Your task to perform on an android device: turn on priority inbox in the gmail app Image 0: 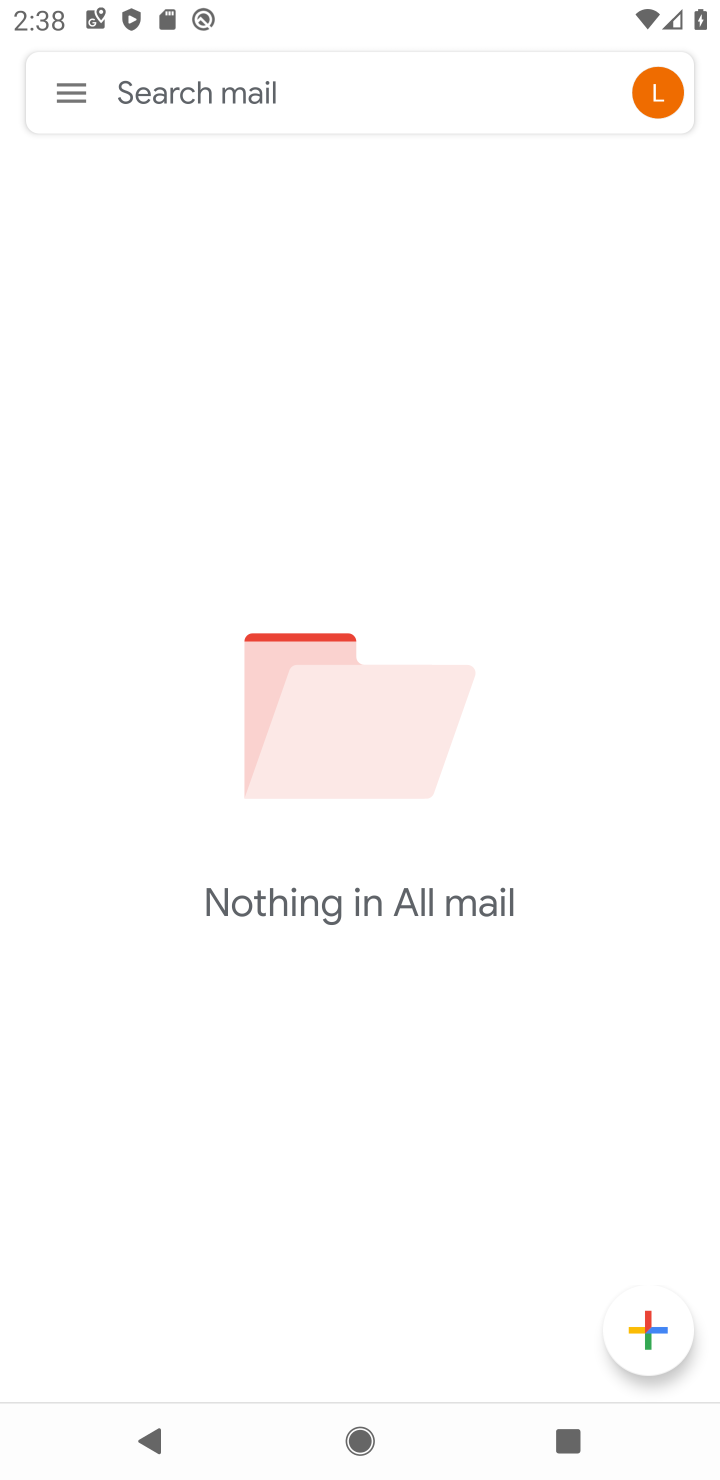
Step 0: click (88, 90)
Your task to perform on an android device: turn on priority inbox in the gmail app Image 1: 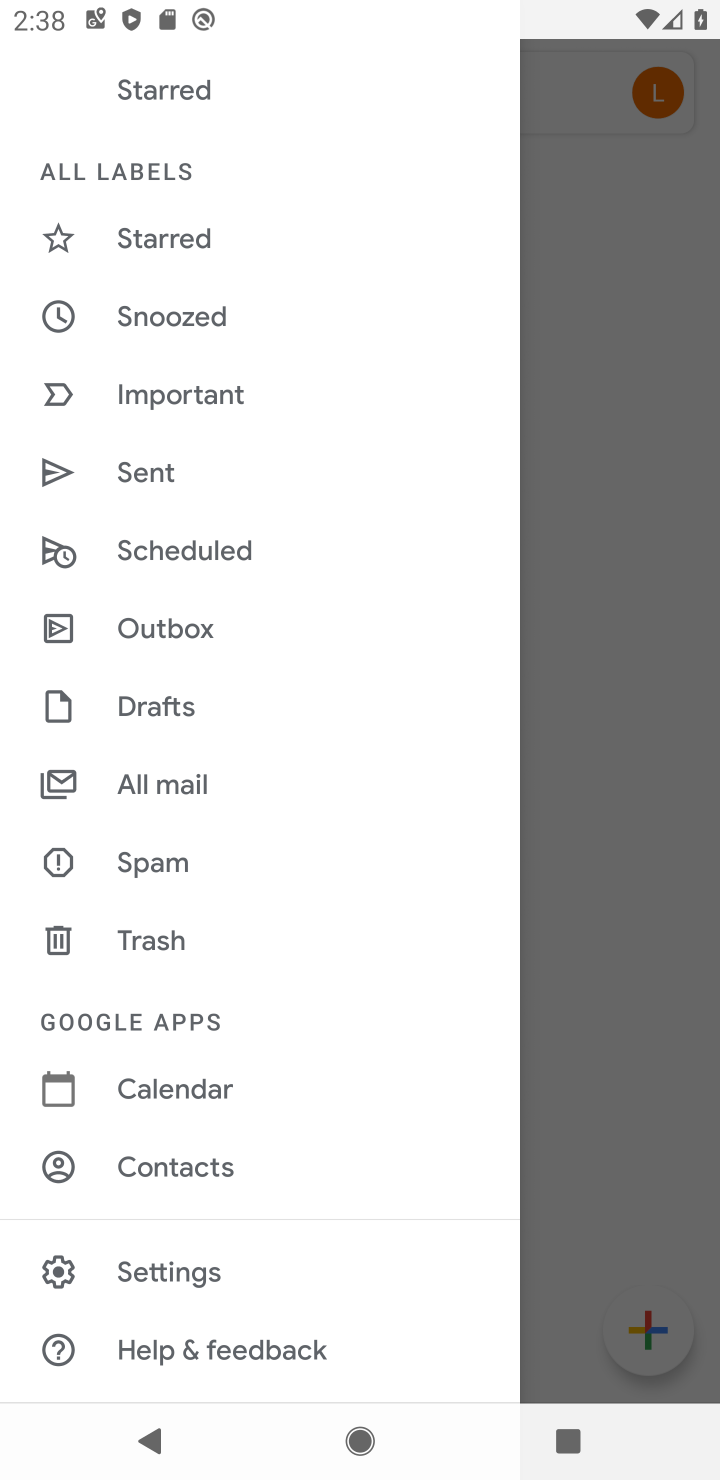
Step 1: click (177, 1266)
Your task to perform on an android device: turn on priority inbox in the gmail app Image 2: 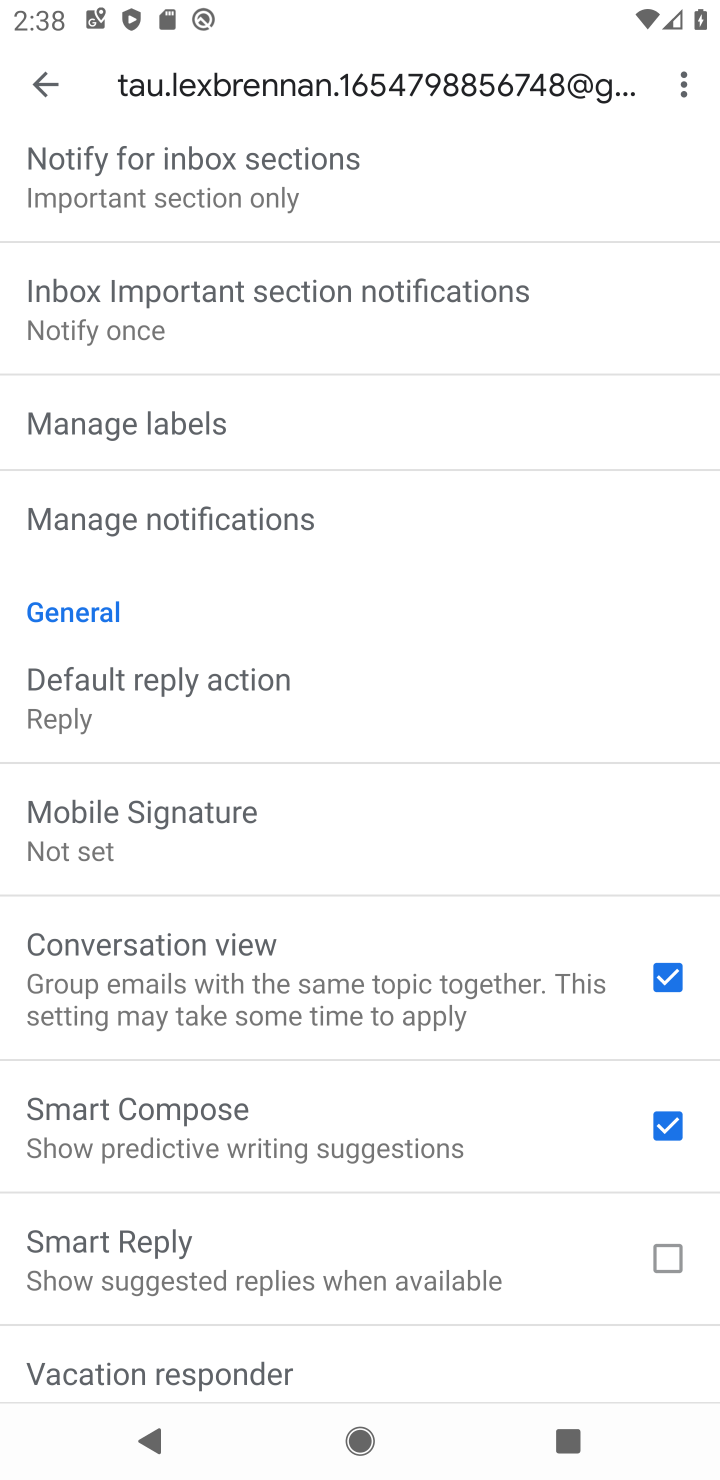
Step 2: drag from (291, 1276) to (355, 429)
Your task to perform on an android device: turn on priority inbox in the gmail app Image 3: 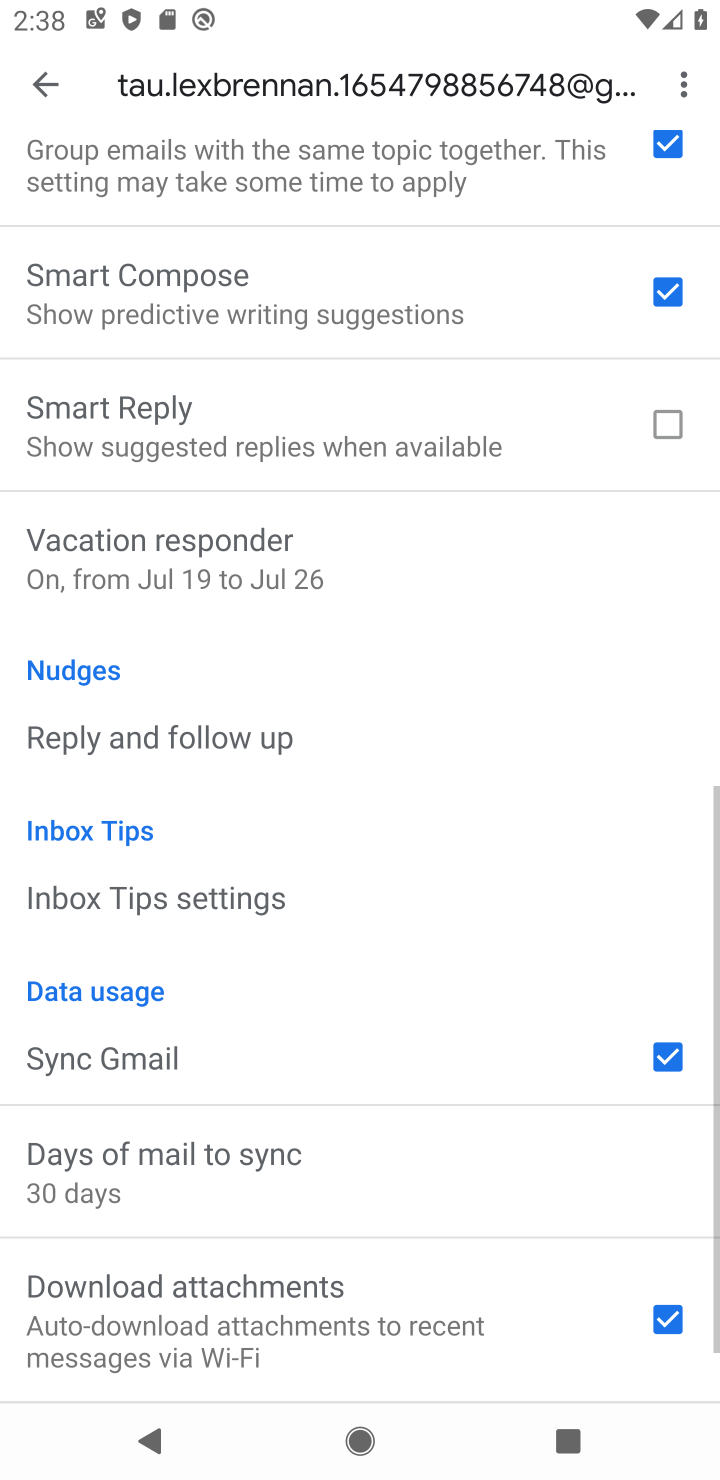
Step 3: drag from (340, 730) to (343, 1252)
Your task to perform on an android device: turn on priority inbox in the gmail app Image 4: 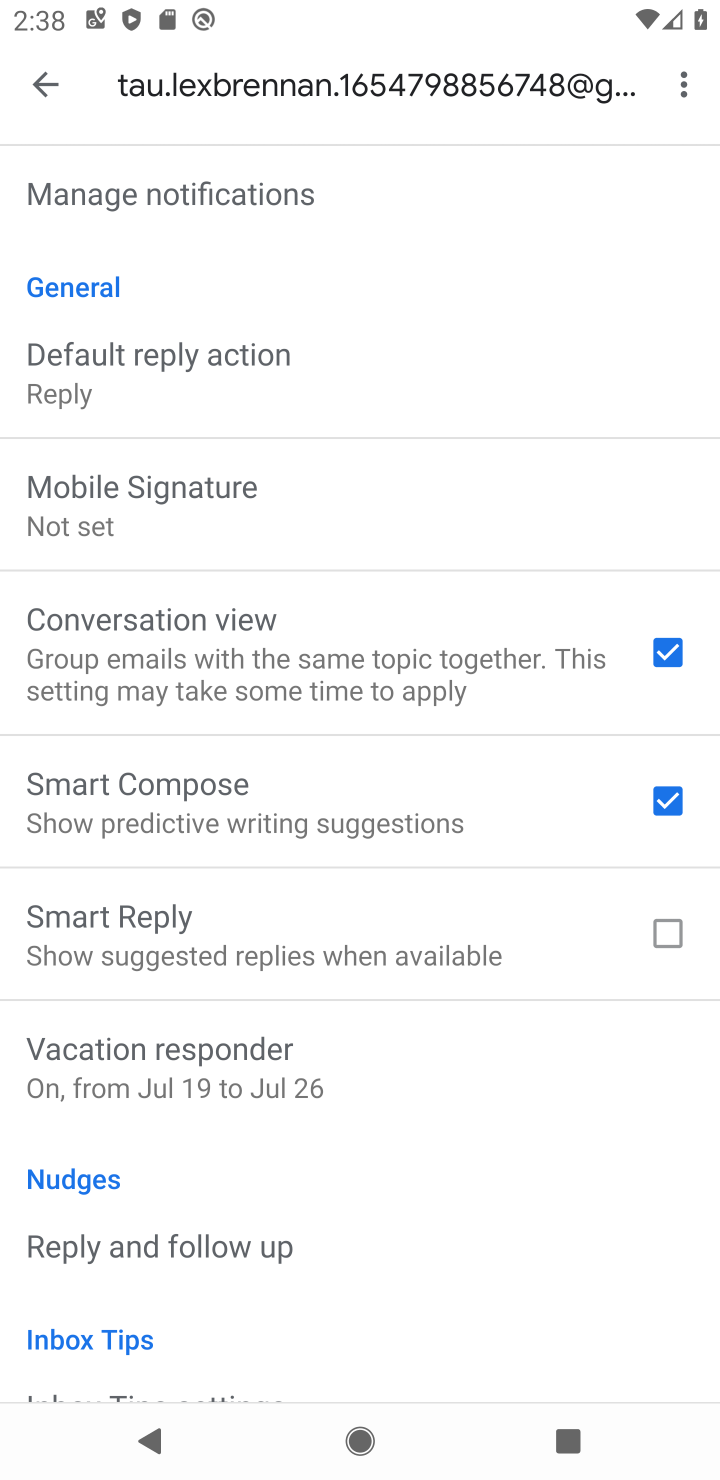
Step 4: drag from (300, 336) to (308, 1069)
Your task to perform on an android device: turn on priority inbox in the gmail app Image 5: 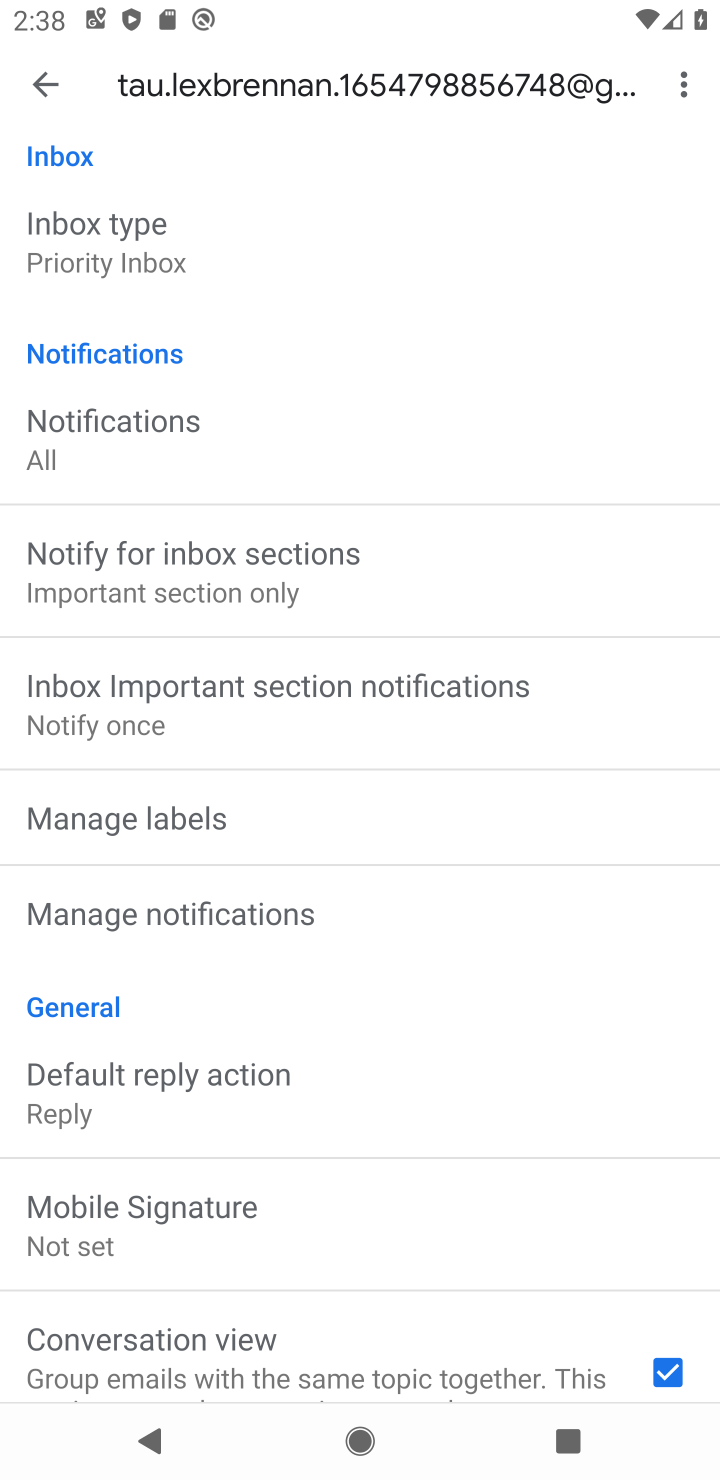
Step 5: click (160, 259)
Your task to perform on an android device: turn on priority inbox in the gmail app Image 6: 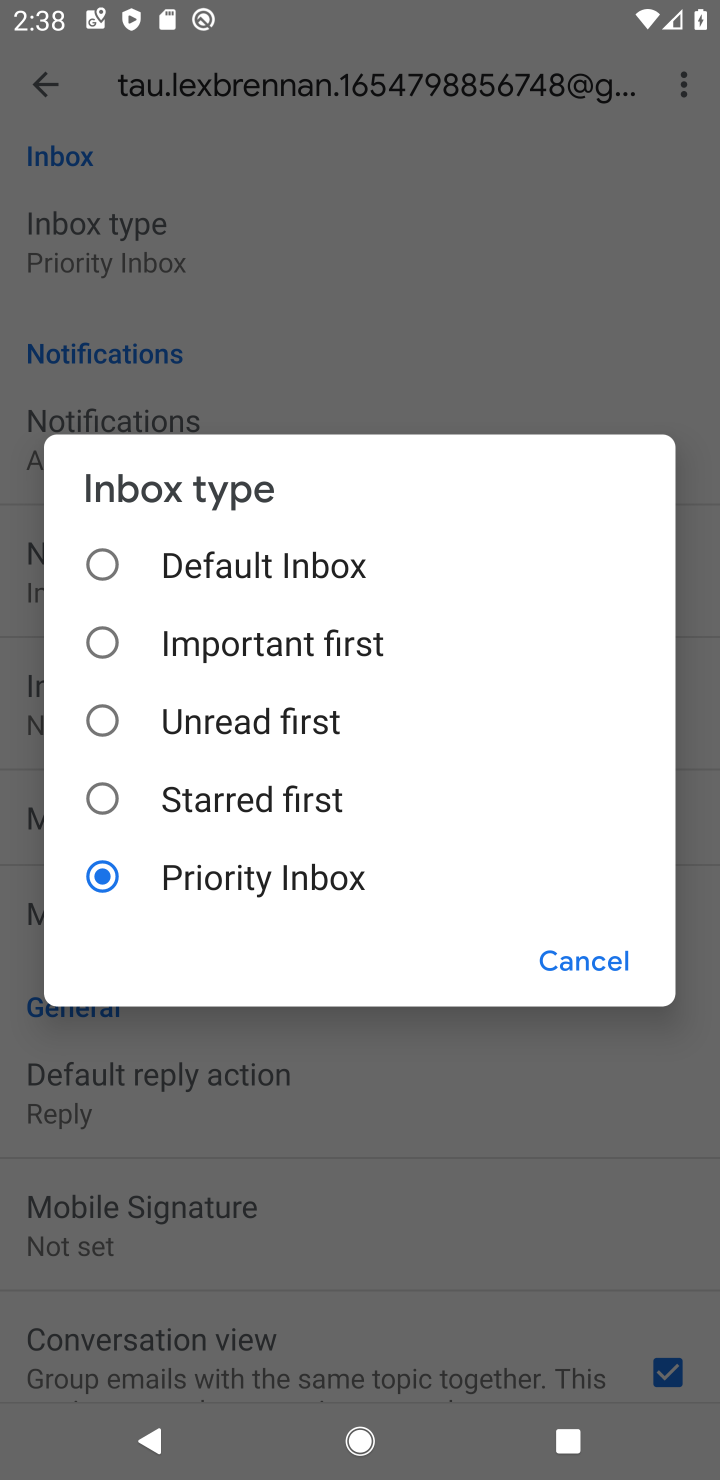
Step 6: task complete